Your task to perform on an android device: see sites visited before in the chrome app Image 0: 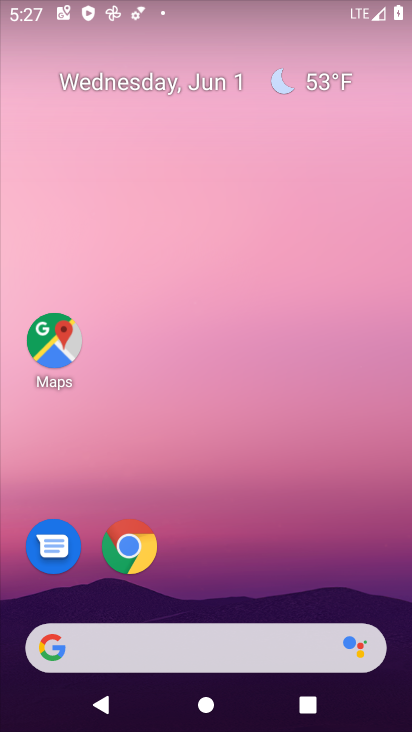
Step 0: drag from (314, 583) to (247, 2)
Your task to perform on an android device: see sites visited before in the chrome app Image 1: 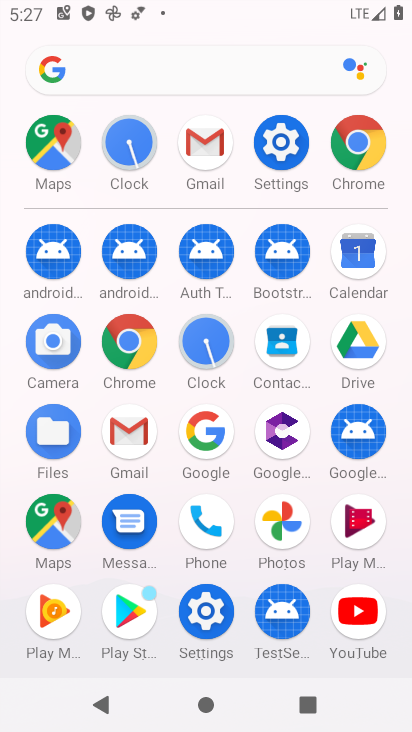
Step 1: drag from (0, 571) to (6, 215)
Your task to perform on an android device: see sites visited before in the chrome app Image 2: 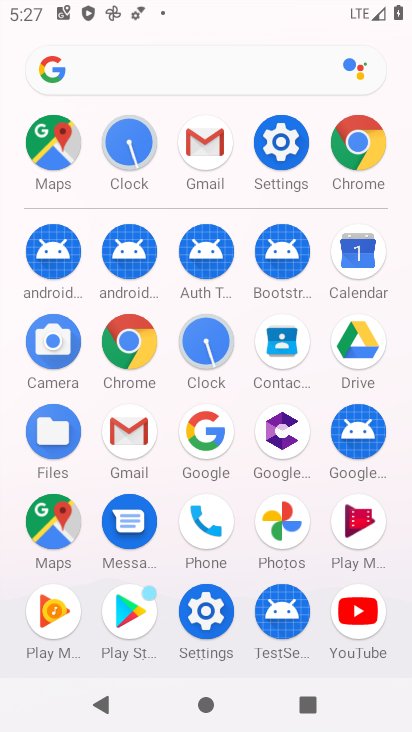
Step 2: click (128, 335)
Your task to perform on an android device: see sites visited before in the chrome app Image 3: 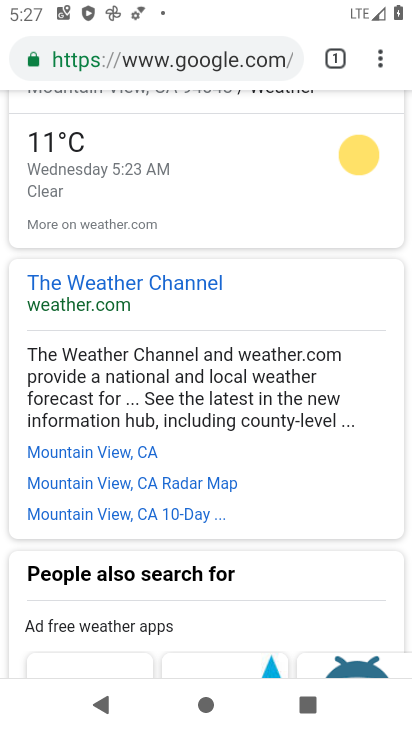
Step 3: task complete